Your task to perform on an android device: Go to Google maps Image 0: 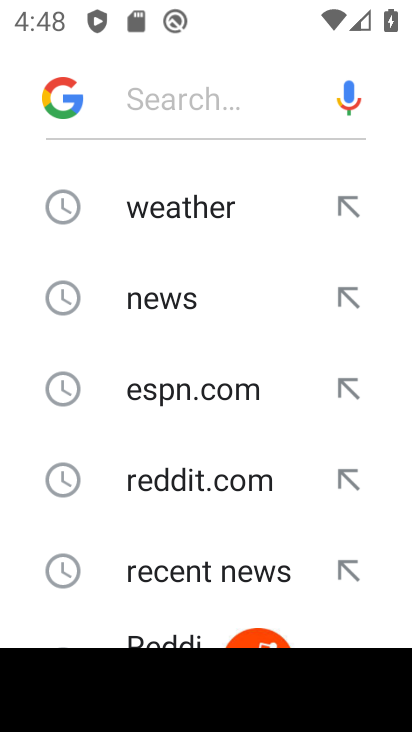
Step 0: press home button
Your task to perform on an android device: Go to Google maps Image 1: 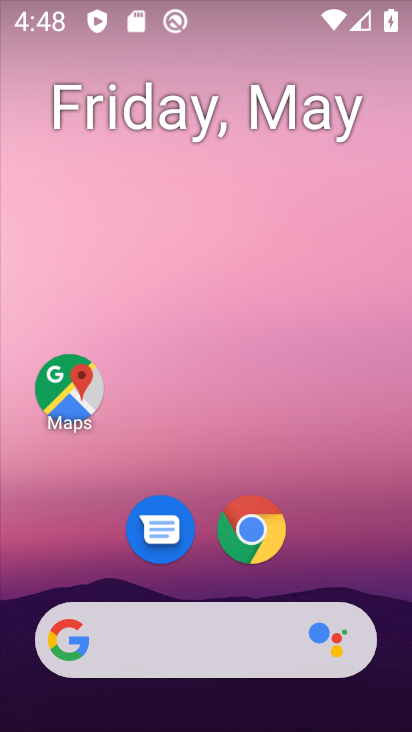
Step 1: drag from (321, 541) to (63, 720)
Your task to perform on an android device: Go to Google maps Image 2: 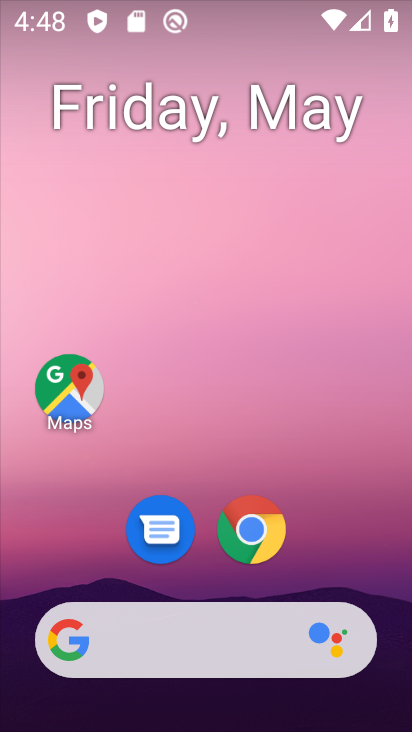
Step 2: click (88, 391)
Your task to perform on an android device: Go to Google maps Image 3: 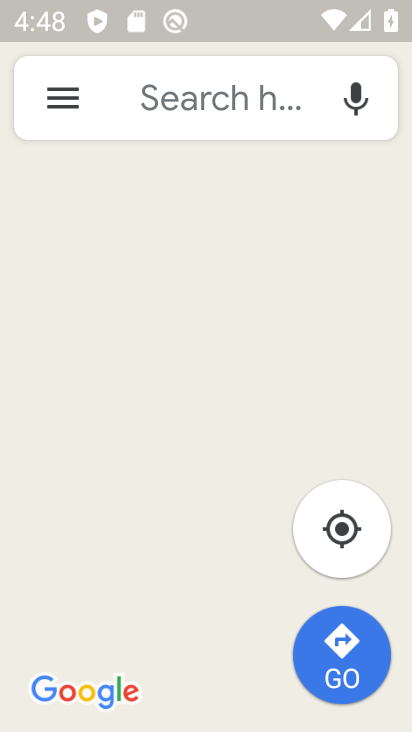
Step 3: task complete